Your task to perform on an android device: turn off priority inbox in the gmail app Image 0: 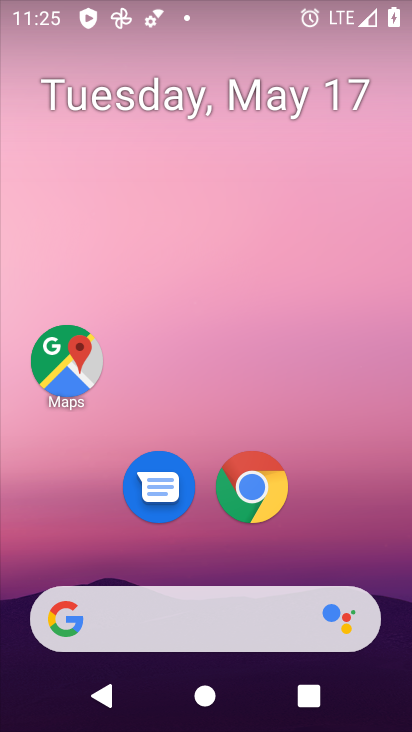
Step 0: press home button
Your task to perform on an android device: turn off priority inbox in the gmail app Image 1: 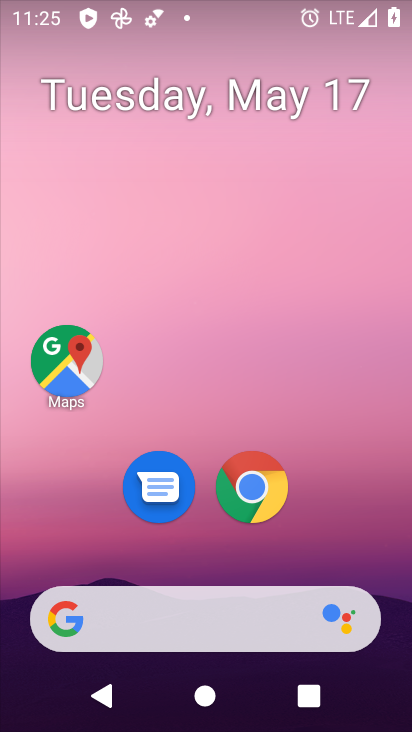
Step 1: click (382, 544)
Your task to perform on an android device: turn off priority inbox in the gmail app Image 2: 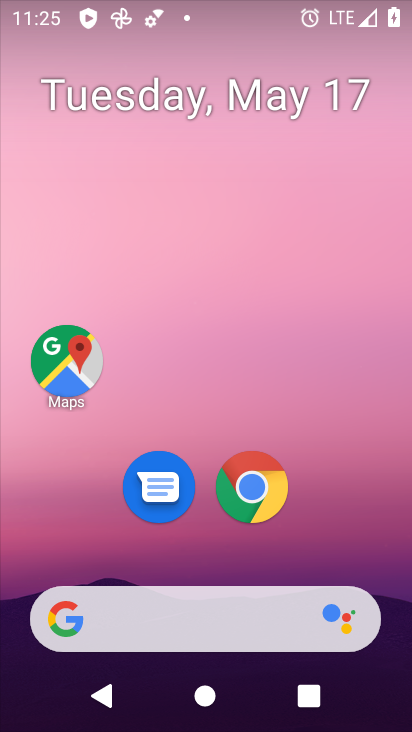
Step 2: drag from (351, 509) to (376, 4)
Your task to perform on an android device: turn off priority inbox in the gmail app Image 3: 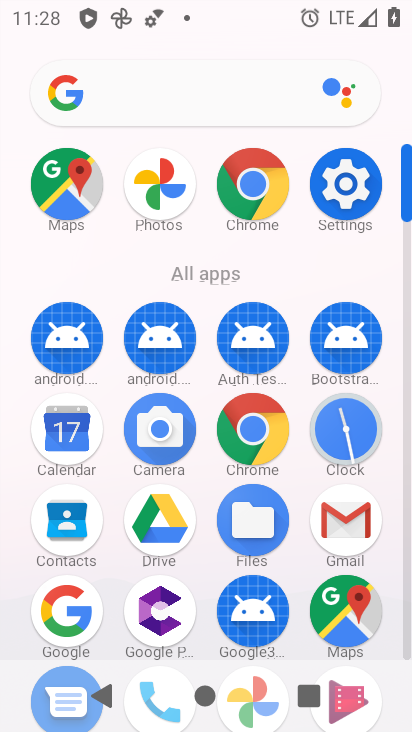
Step 3: drag from (406, 493) to (391, 593)
Your task to perform on an android device: turn off priority inbox in the gmail app Image 4: 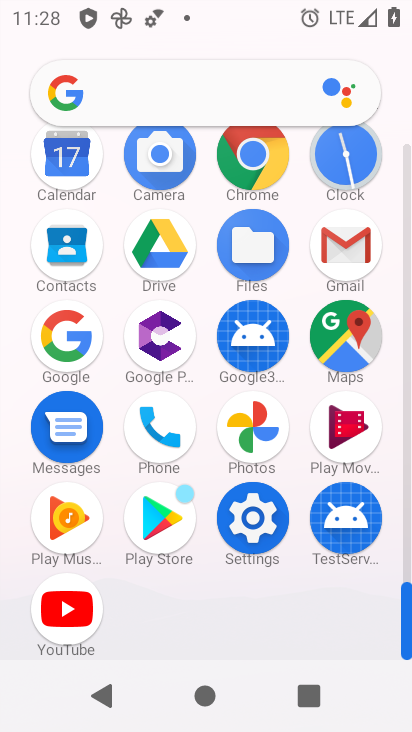
Step 4: click (359, 228)
Your task to perform on an android device: turn off priority inbox in the gmail app Image 5: 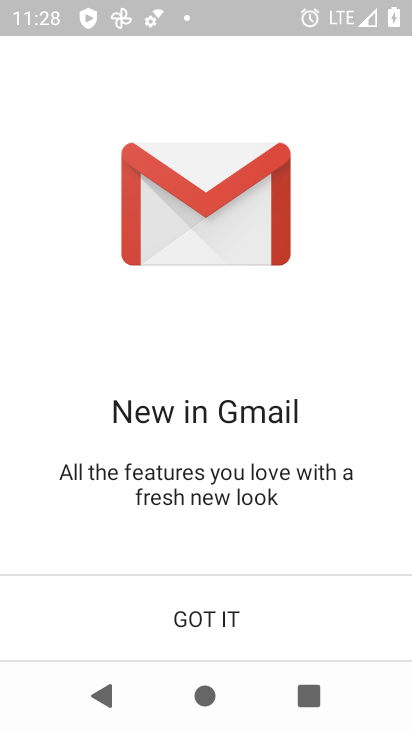
Step 5: click (285, 603)
Your task to perform on an android device: turn off priority inbox in the gmail app Image 6: 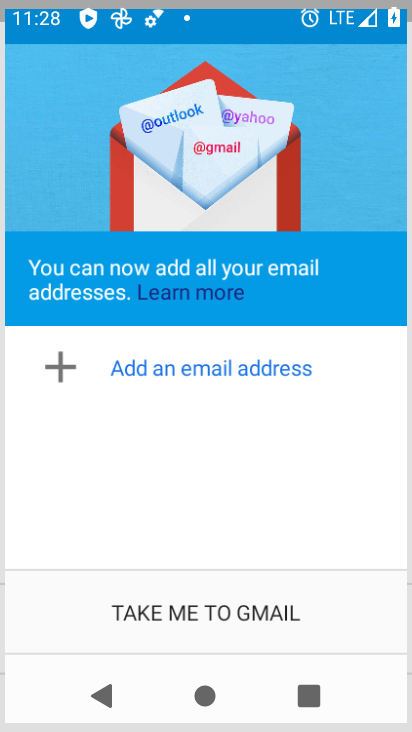
Step 6: click (284, 603)
Your task to perform on an android device: turn off priority inbox in the gmail app Image 7: 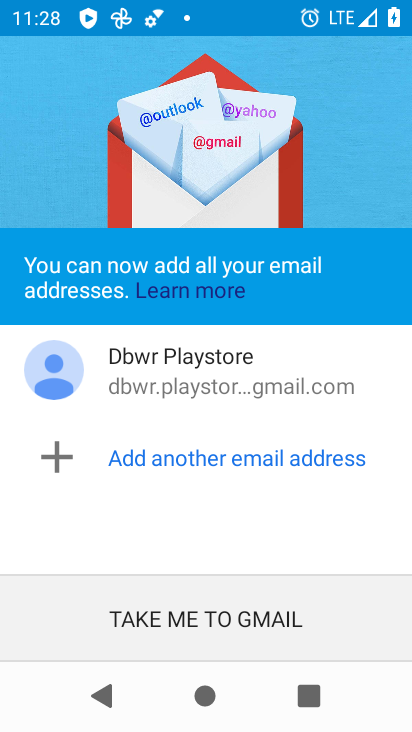
Step 7: click (284, 603)
Your task to perform on an android device: turn off priority inbox in the gmail app Image 8: 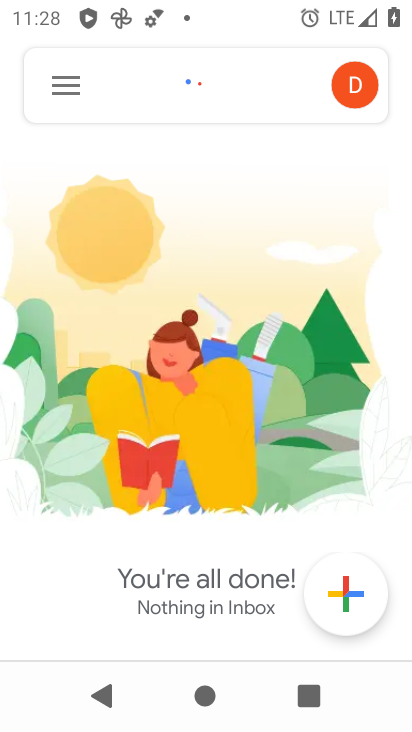
Step 8: click (44, 92)
Your task to perform on an android device: turn off priority inbox in the gmail app Image 9: 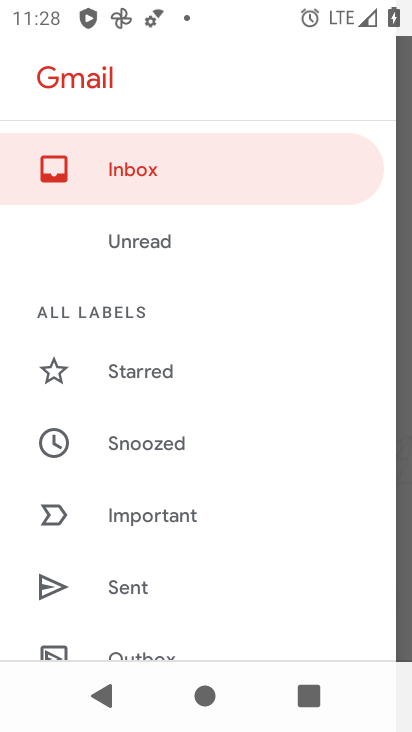
Step 9: drag from (188, 546) to (241, 125)
Your task to perform on an android device: turn off priority inbox in the gmail app Image 10: 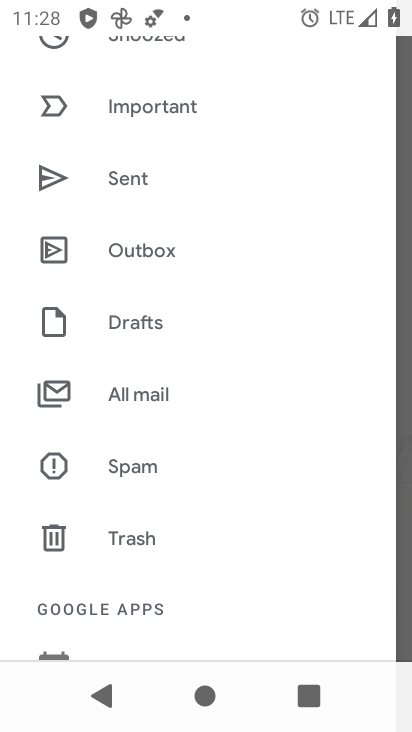
Step 10: drag from (176, 569) to (272, 195)
Your task to perform on an android device: turn off priority inbox in the gmail app Image 11: 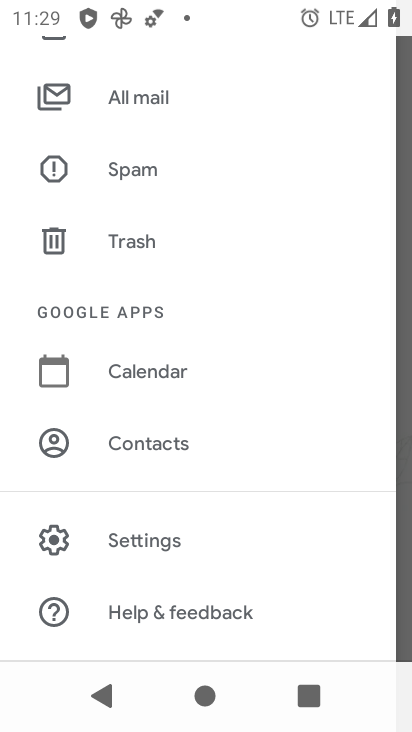
Step 11: click (176, 550)
Your task to perform on an android device: turn off priority inbox in the gmail app Image 12: 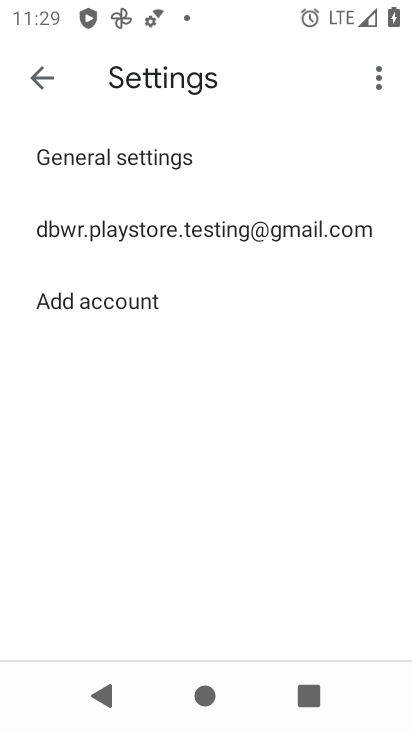
Step 12: click (199, 233)
Your task to perform on an android device: turn off priority inbox in the gmail app Image 13: 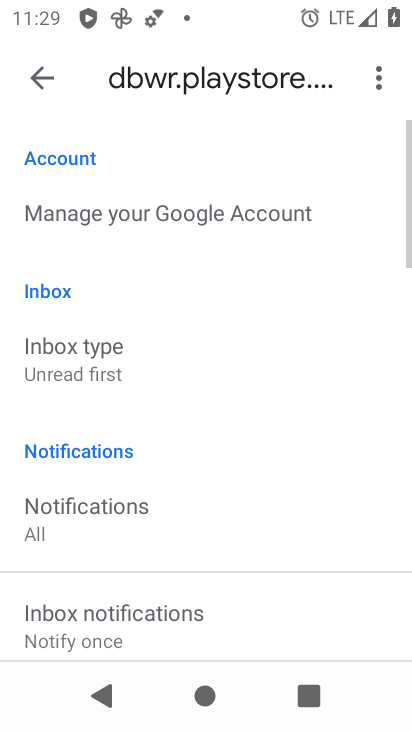
Step 13: click (126, 367)
Your task to perform on an android device: turn off priority inbox in the gmail app Image 14: 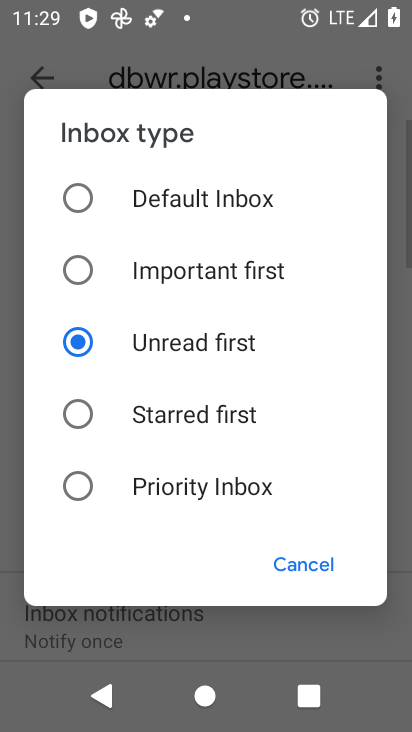
Step 14: click (126, 205)
Your task to perform on an android device: turn off priority inbox in the gmail app Image 15: 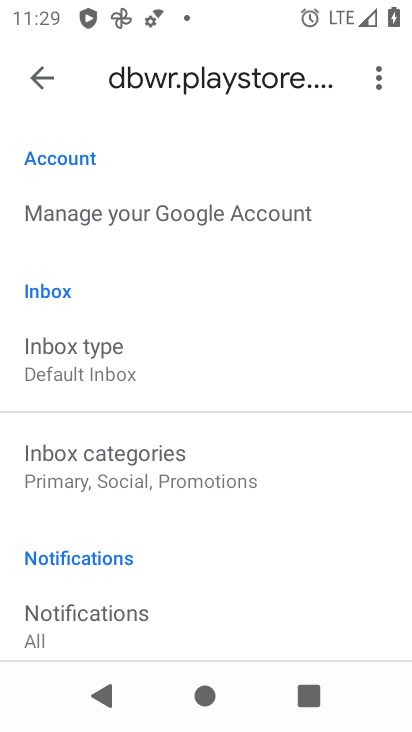
Step 15: task complete